Your task to perform on an android device: turn off sleep mode Image 0: 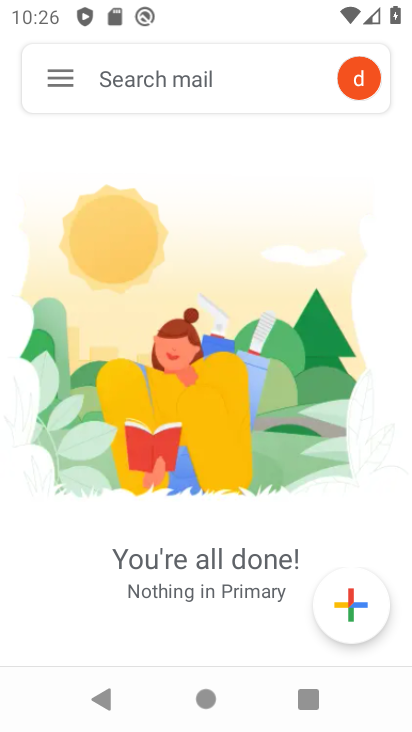
Step 0: press home button
Your task to perform on an android device: turn off sleep mode Image 1: 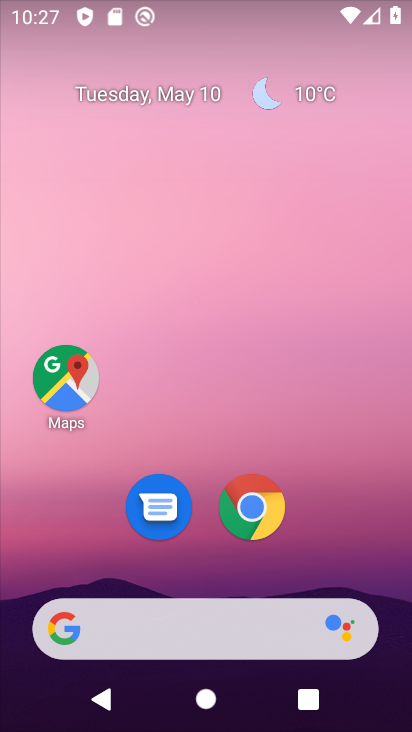
Step 1: drag from (189, 720) to (179, 91)
Your task to perform on an android device: turn off sleep mode Image 2: 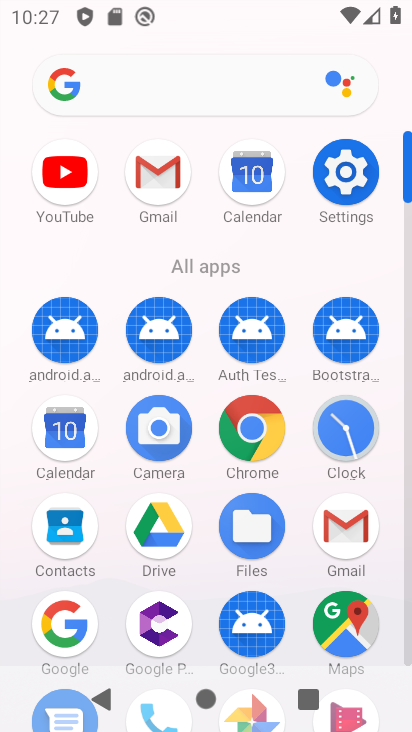
Step 2: click (347, 169)
Your task to perform on an android device: turn off sleep mode Image 3: 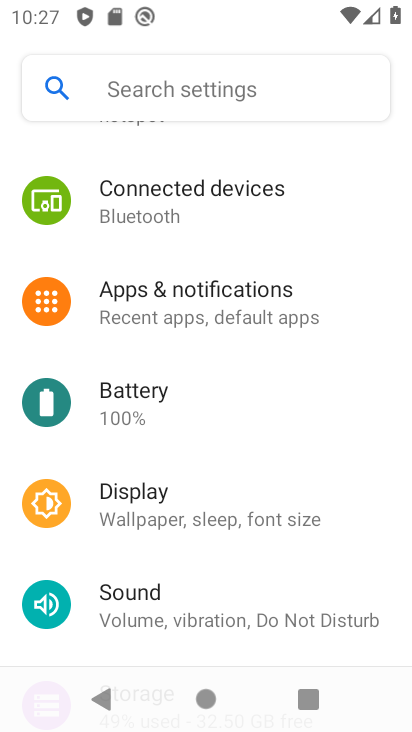
Step 3: click (167, 510)
Your task to perform on an android device: turn off sleep mode Image 4: 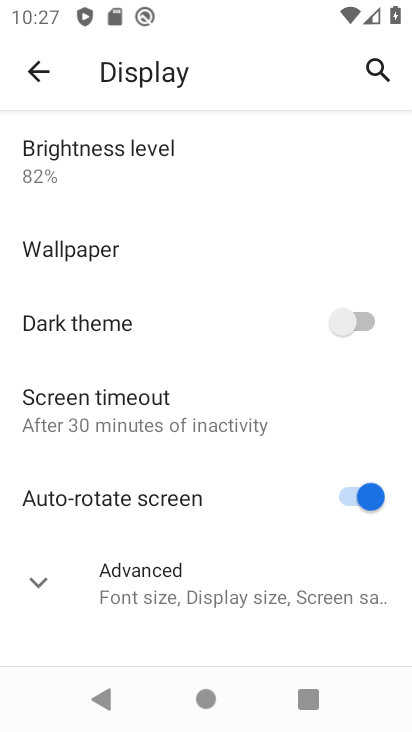
Step 4: click (39, 72)
Your task to perform on an android device: turn off sleep mode Image 5: 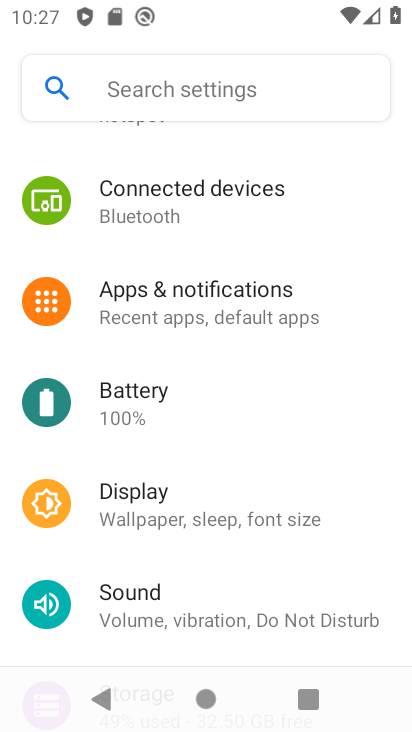
Step 5: task complete